Your task to perform on an android device: Go to display settings Image 0: 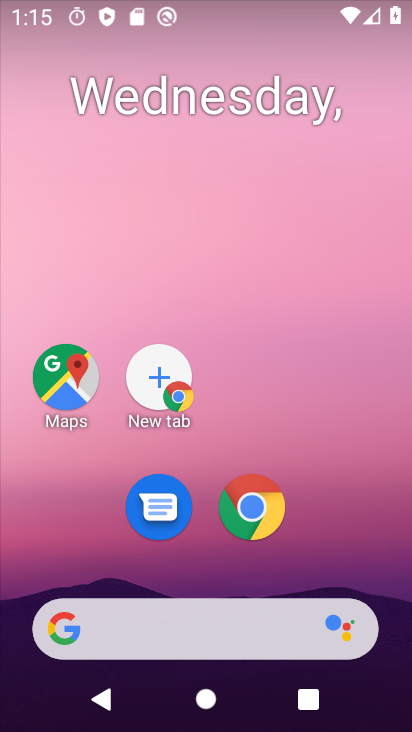
Step 0: drag from (360, 528) to (395, 59)
Your task to perform on an android device: Go to display settings Image 1: 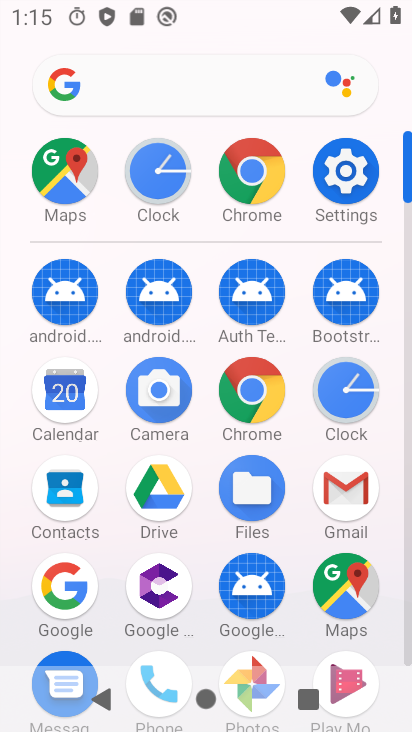
Step 1: click (355, 183)
Your task to perform on an android device: Go to display settings Image 2: 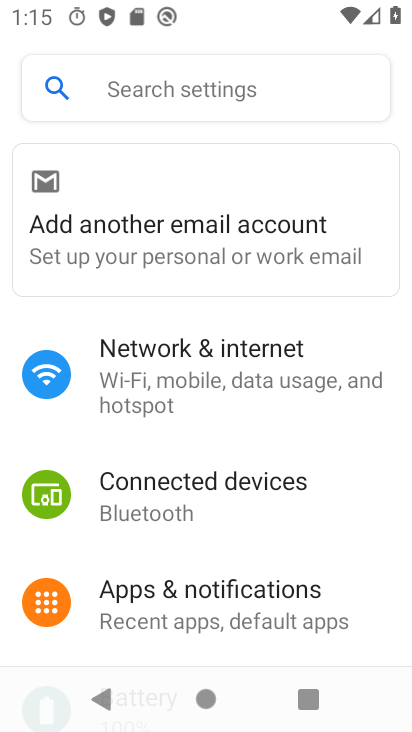
Step 2: drag from (177, 543) to (175, 211)
Your task to perform on an android device: Go to display settings Image 3: 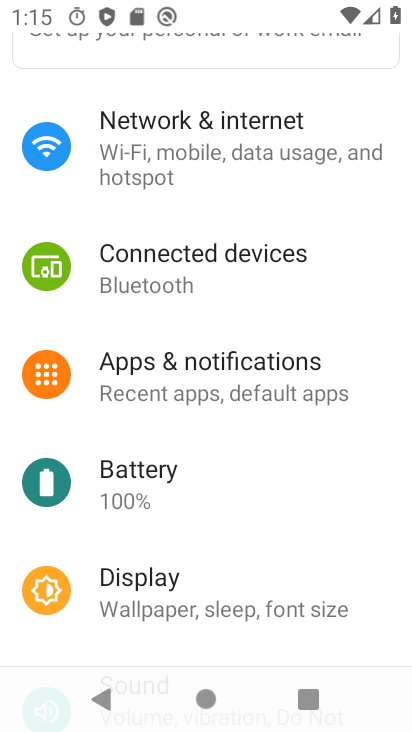
Step 3: click (165, 600)
Your task to perform on an android device: Go to display settings Image 4: 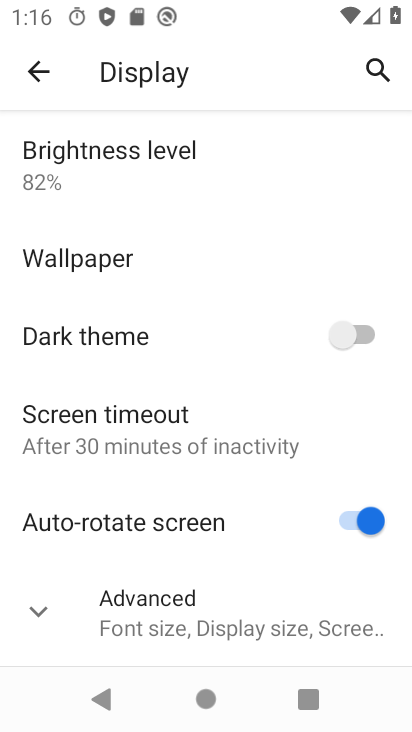
Step 4: task complete